Your task to perform on an android device: Do I have any events this weekend? Image 0: 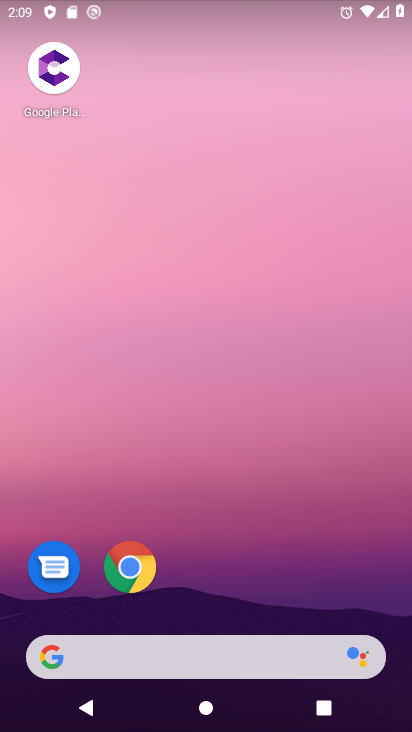
Step 0: drag from (222, 602) to (236, 49)
Your task to perform on an android device: Do I have any events this weekend? Image 1: 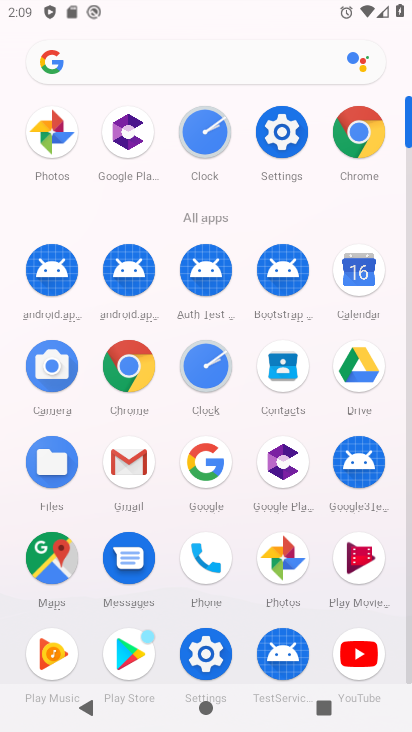
Step 1: click (357, 287)
Your task to perform on an android device: Do I have any events this weekend? Image 2: 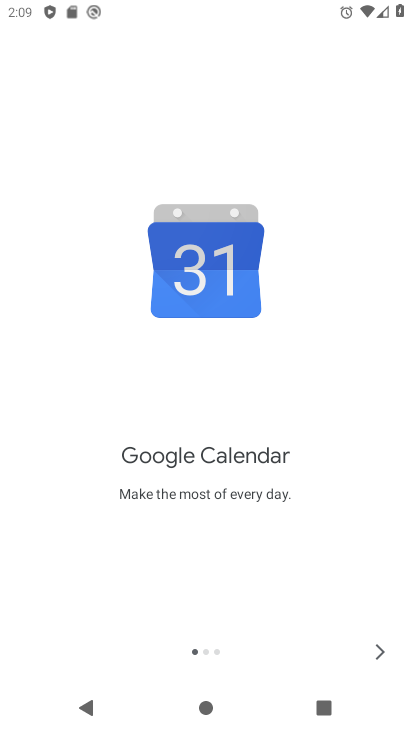
Step 2: click (380, 652)
Your task to perform on an android device: Do I have any events this weekend? Image 3: 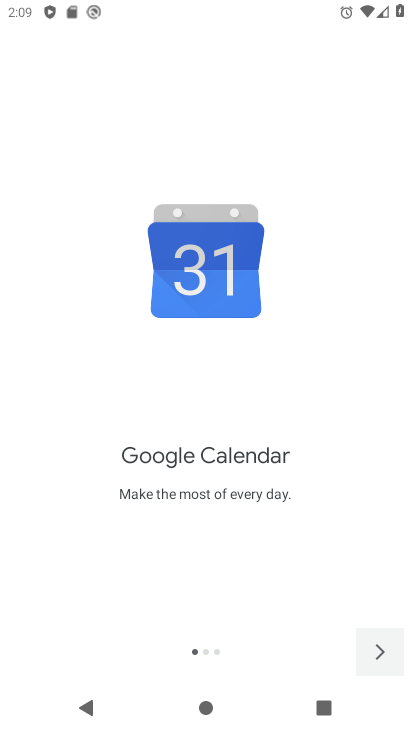
Step 3: click (380, 652)
Your task to perform on an android device: Do I have any events this weekend? Image 4: 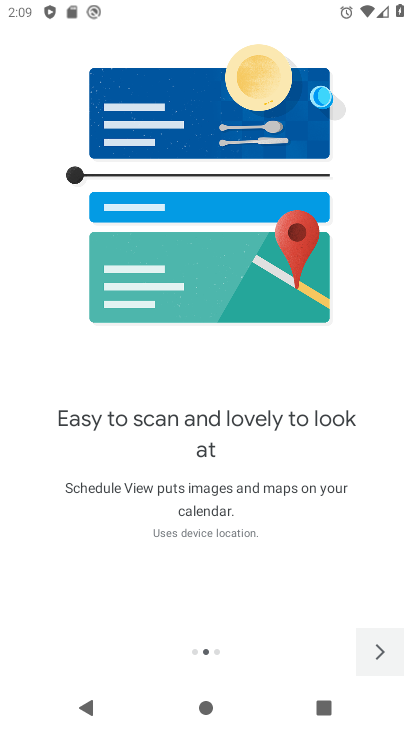
Step 4: click (380, 652)
Your task to perform on an android device: Do I have any events this weekend? Image 5: 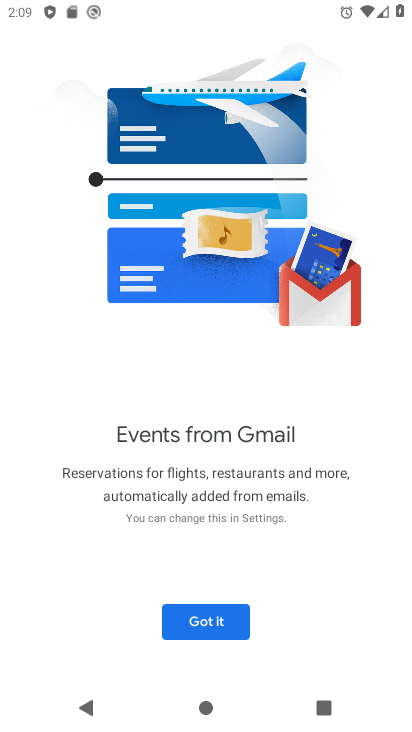
Step 5: click (380, 652)
Your task to perform on an android device: Do I have any events this weekend? Image 6: 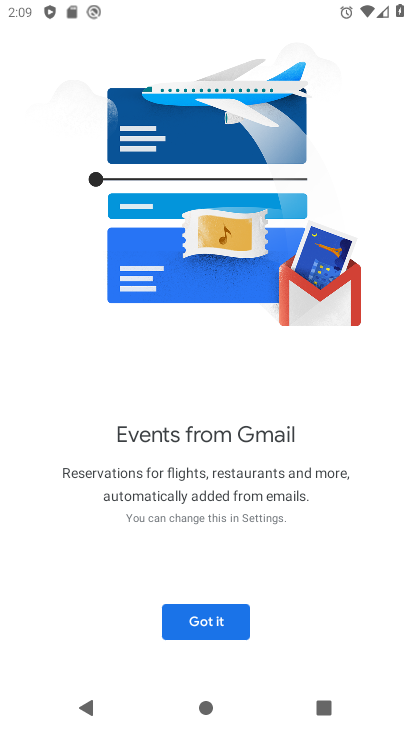
Step 6: click (201, 610)
Your task to perform on an android device: Do I have any events this weekend? Image 7: 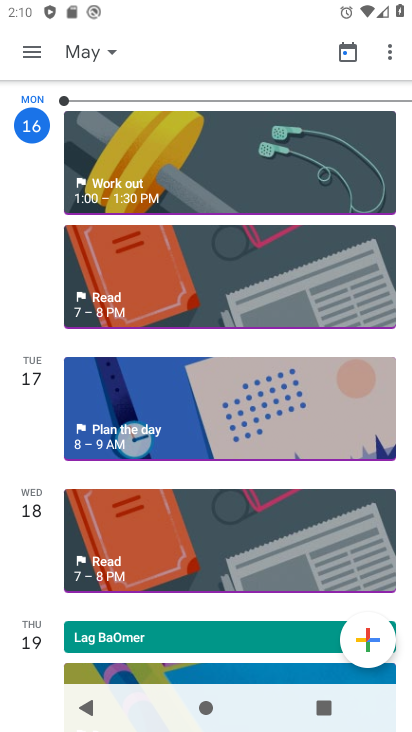
Step 7: click (99, 48)
Your task to perform on an android device: Do I have any events this weekend? Image 8: 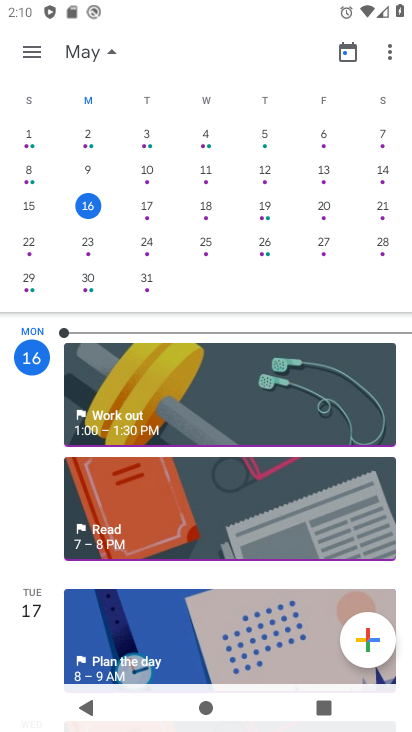
Step 8: click (321, 193)
Your task to perform on an android device: Do I have any events this weekend? Image 9: 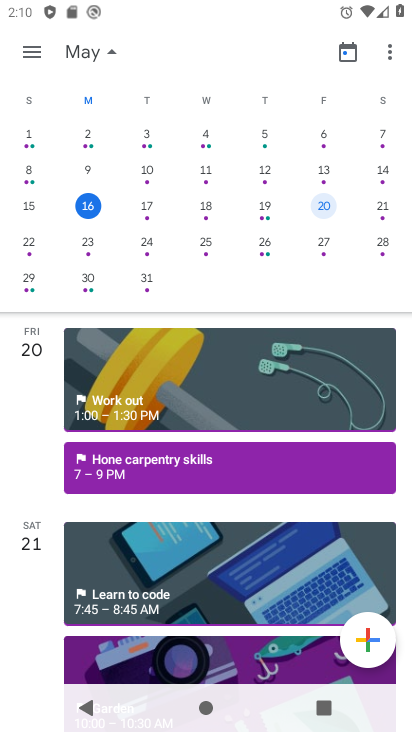
Step 9: click (98, 53)
Your task to perform on an android device: Do I have any events this weekend? Image 10: 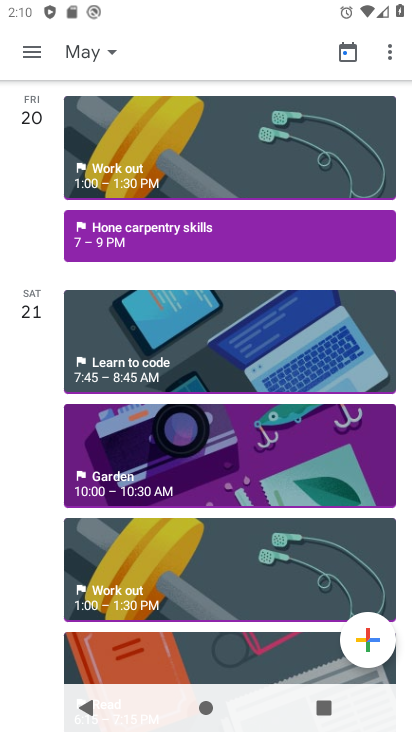
Step 10: task complete